Your task to perform on an android device: Open a new Chrome private tab Image 0: 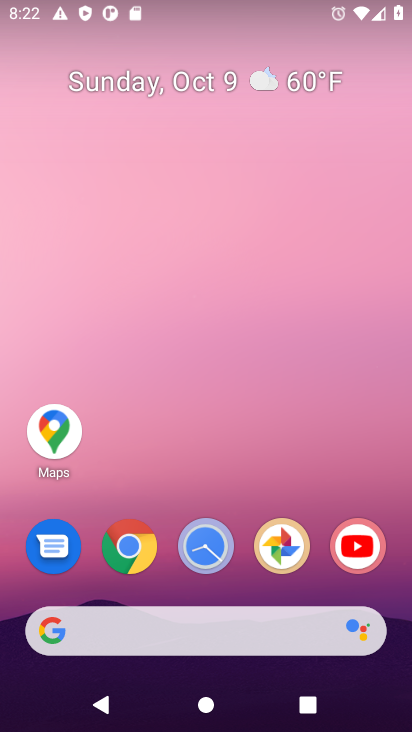
Step 0: click (134, 548)
Your task to perform on an android device: Open a new Chrome private tab Image 1: 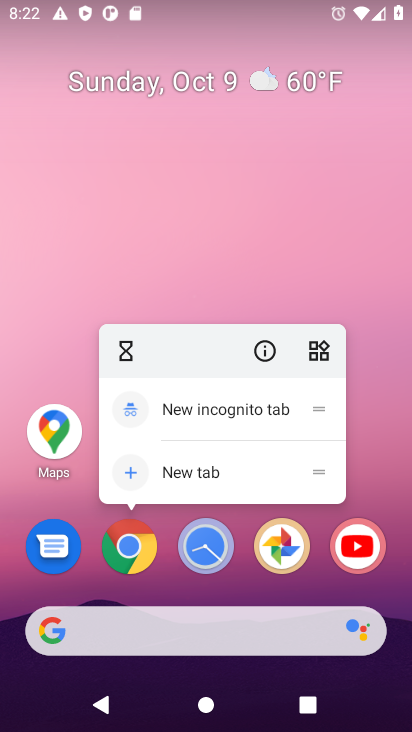
Step 1: click (246, 413)
Your task to perform on an android device: Open a new Chrome private tab Image 2: 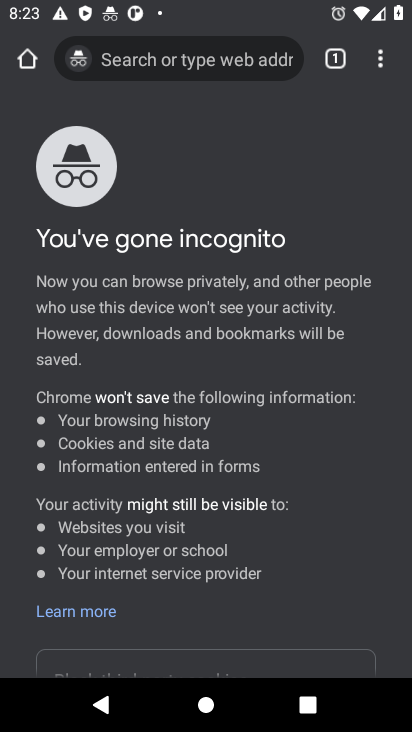
Step 2: task complete